Your task to perform on an android device: turn notification dots on Image 0: 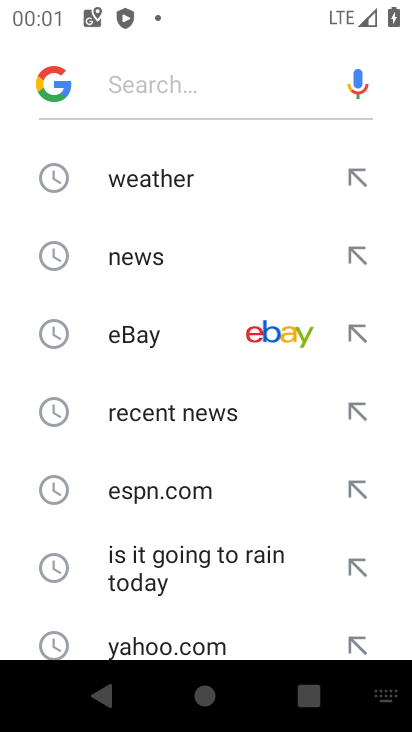
Step 0: press home button
Your task to perform on an android device: turn notification dots on Image 1: 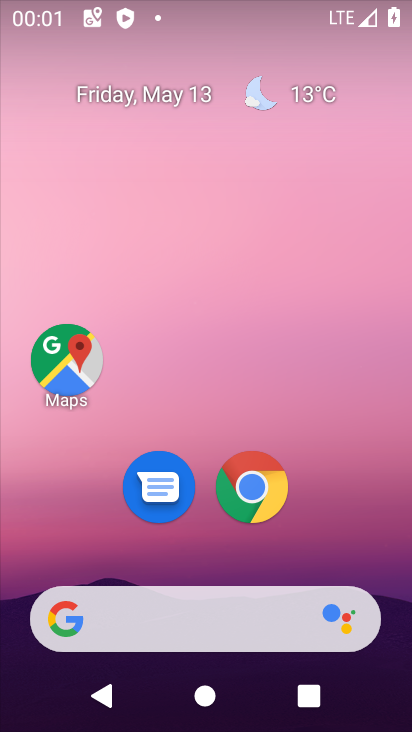
Step 1: drag from (185, 568) to (205, 146)
Your task to perform on an android device: turn notification dots on Image 2: 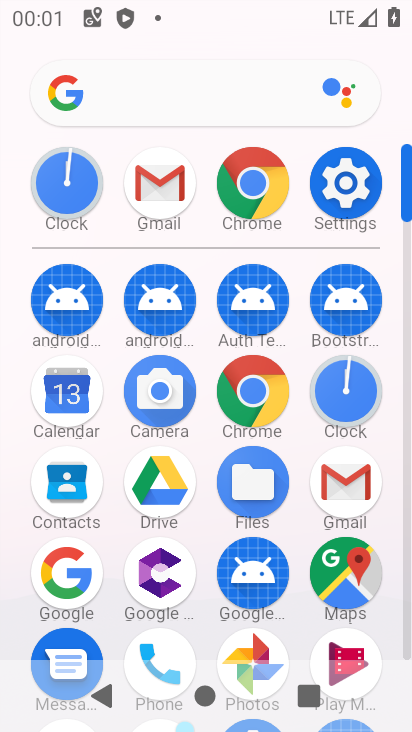
Step 2: click (372, 186)
Your task to perform on an android device: turn notification dots on Image 3: 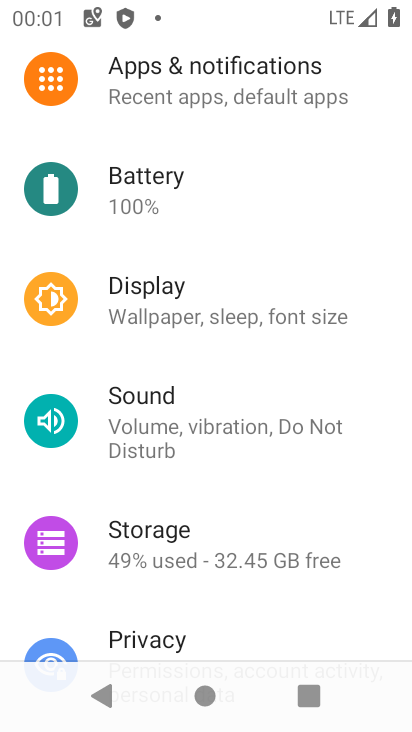
Step 3: click (214, 92)
Your task to perform on an android device: turn notification dots on Image 4: 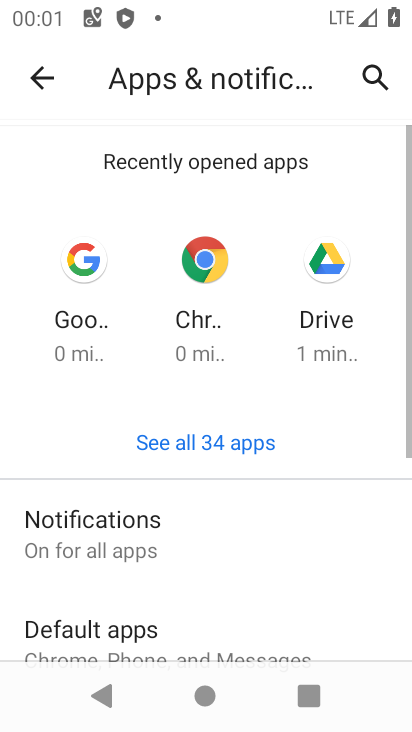
Step 4: click (141, 524)
Your task to perform on an android device: turn notification dots on Image 5: 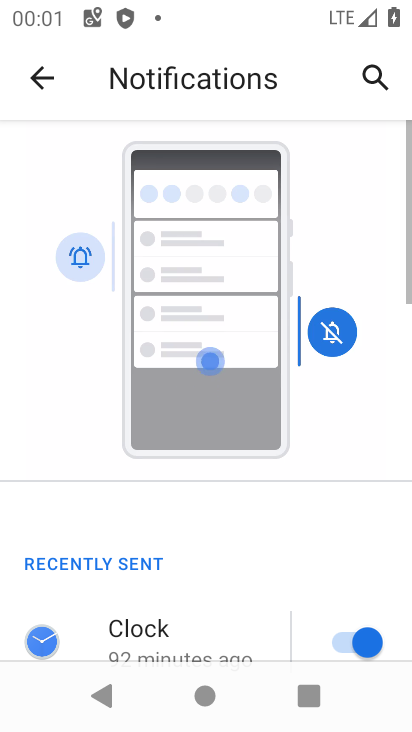
Step 5: drag from (141, 524) to (217, 120)
Your task to perform on an android device: turn notification dots on Image 6: 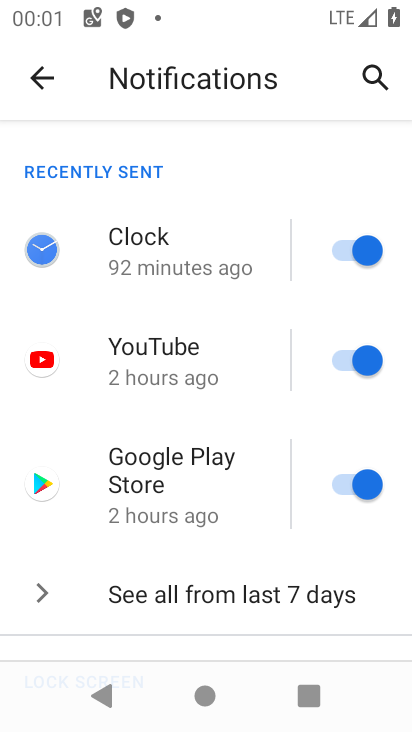
Step 6: drag from (119, 558) to (187, 204)
Your task to perform on an android device: turn notification dots on Image 7: 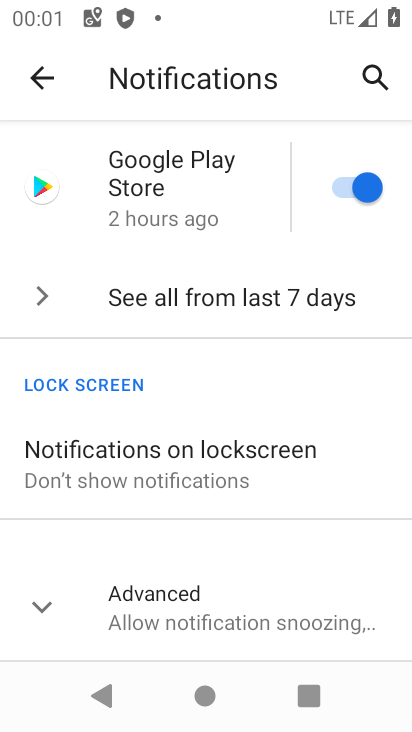
Step 7: click (237, 619)
Your task to perform on an android device: turn notification dots on Image 8: 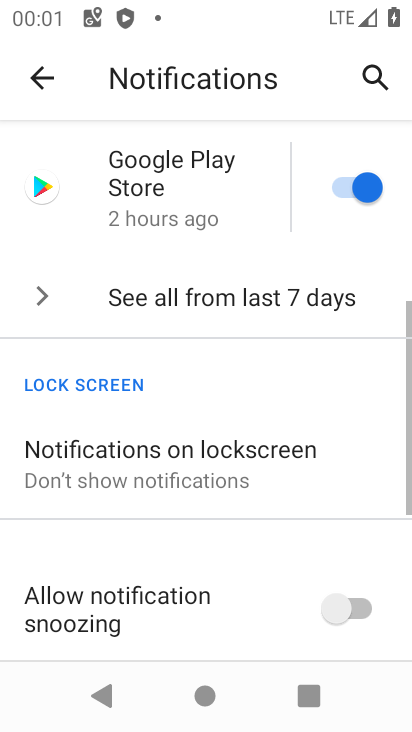
Step 8: task complete